Your task to perform on an android device: stop showing notifications on the lock screen Image 0: 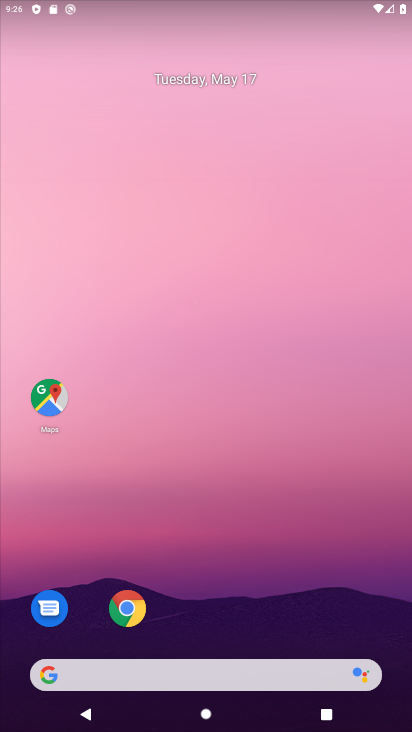
Step 0: drag from (242, 574) to (187, 2)
Your task to perform on an android device: stop showing notifications on the lock screen Image 1: 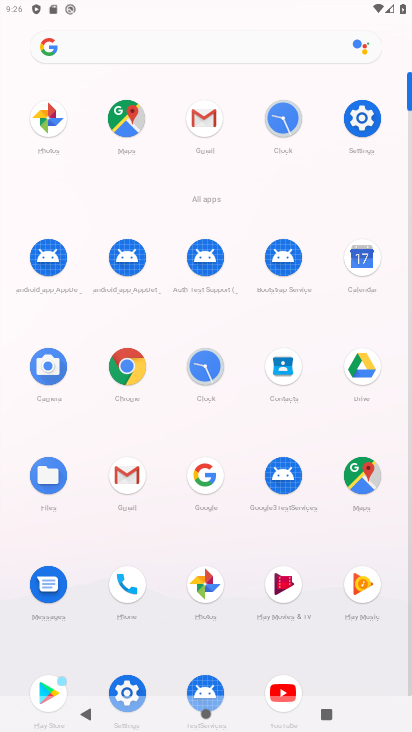
Step 1: click (362, 115)
Your task to perform on an android device: stop showing notifications on the lock screen Image 2: 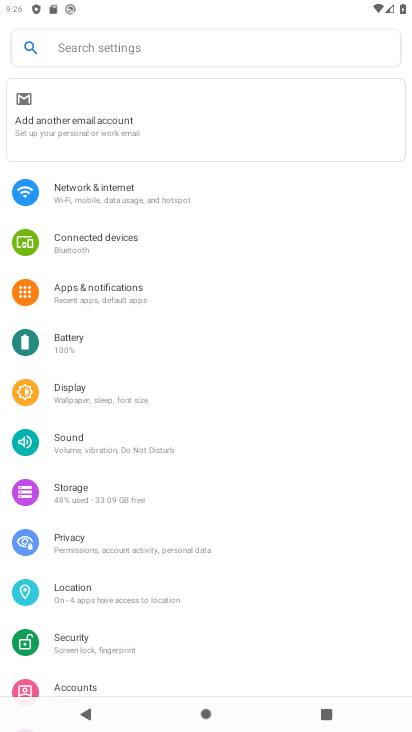
Step 2: click (111, 289)
Your task to perform on an android device: stop showing notifications on the lock screen Image 3: 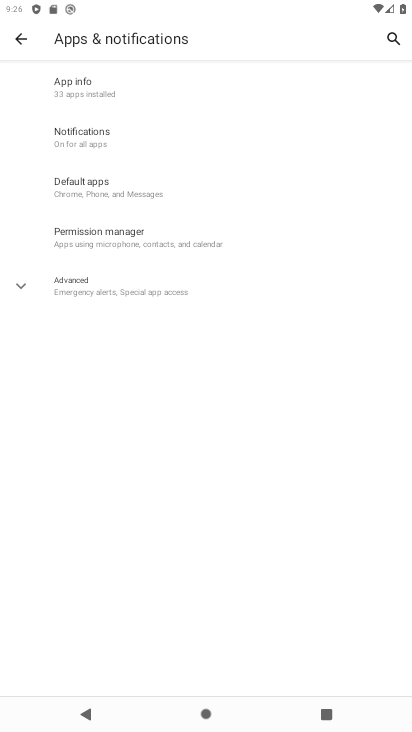
Step 3: click (87, 134)
Your task to perform on an android device: stop showing notifications on the lock screen Image 4: 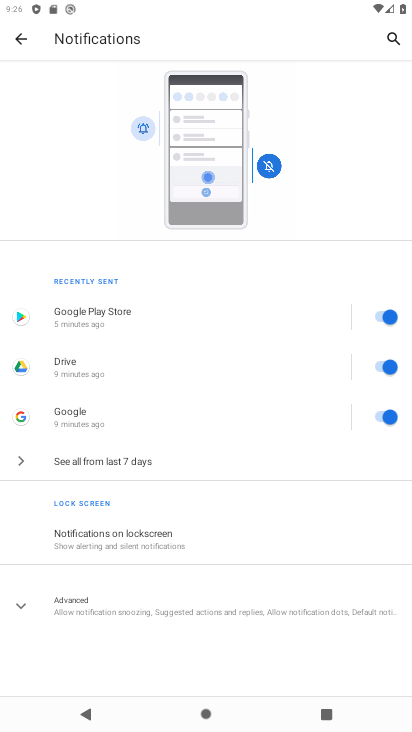
Step 4: drag from (222, 504) to (168, 215)
Your task to perform on an android device: stop showing notifications on the lock screen Image 5: 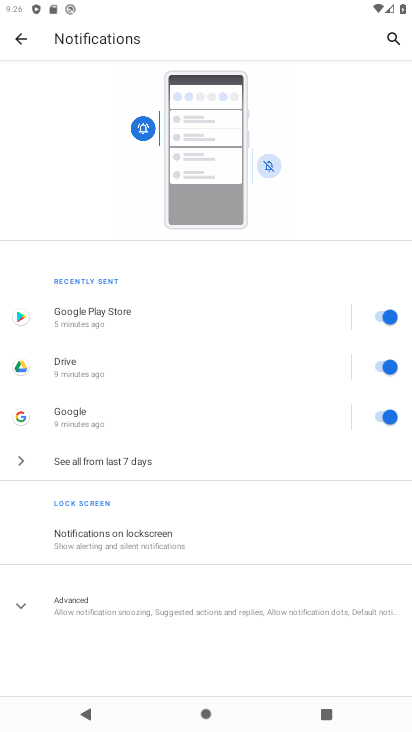
Step 5: click (107, 538)
Your task to perform on an android device: stop showing notifications on the lock screen Image 6: 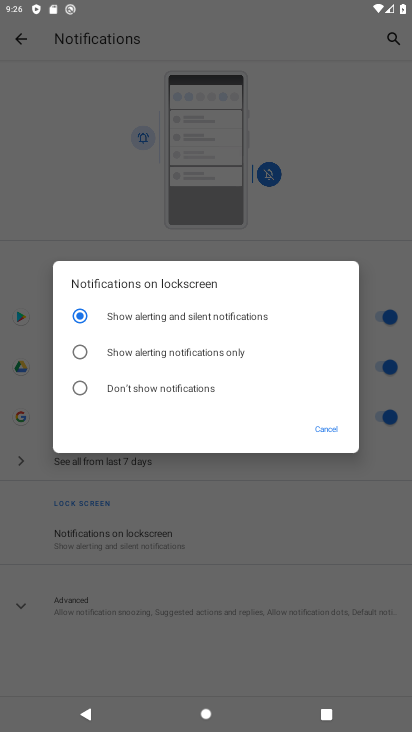
Step 6: click (78, 390)
Your task to perform on an android device: stop showing notifications on the lock screen Image 7: 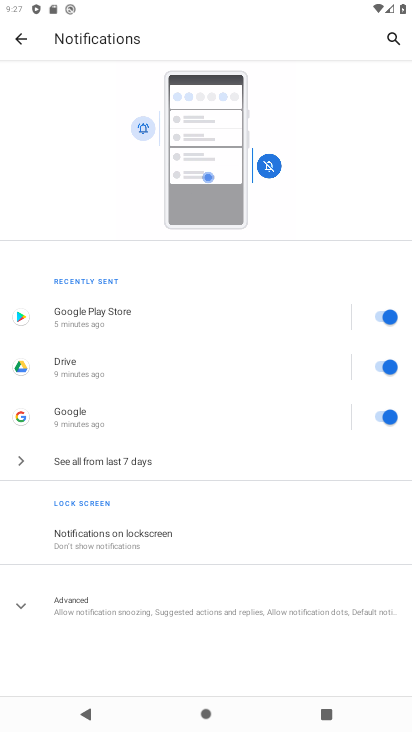
Step 7: task complete